Your task to perform on an android device: turn on wifi Image 0: 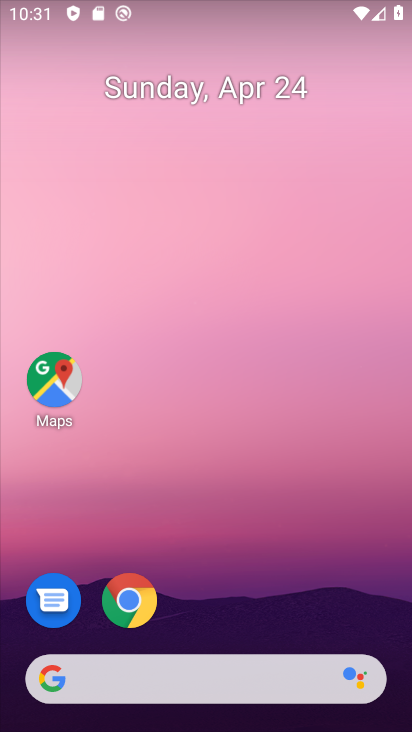
Step 0: drag from (255, 591) to (209, 2)
Your task to perform on an android device: turn on wifi Image 1: 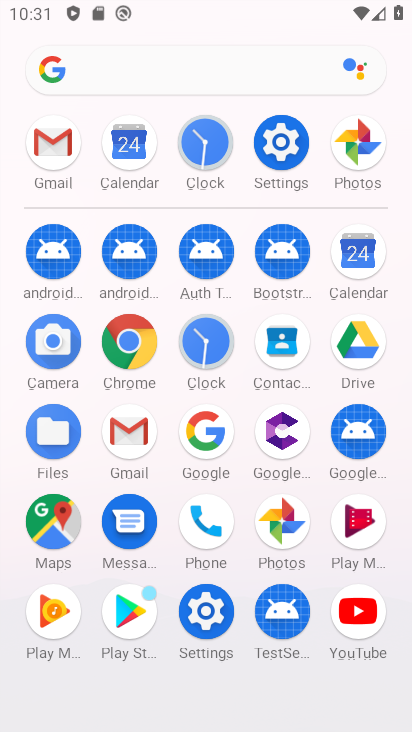
Step 1: click (281, 142)
Your task to perform on an android device: turn on wifi Image 2: 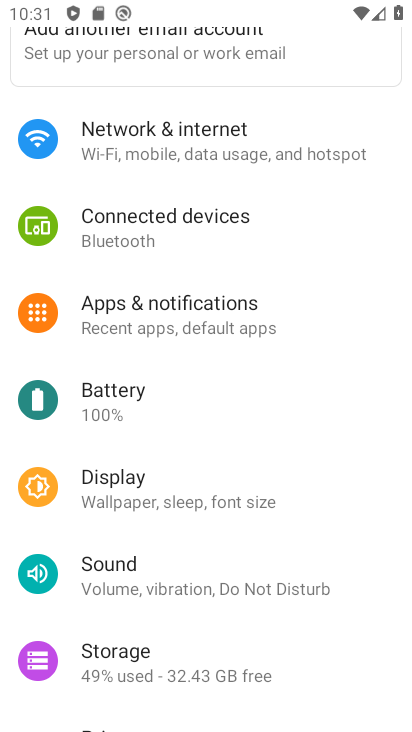
Step 2: click (150, 140)
Your task to perform on an android device: turn on wifi Image 3: 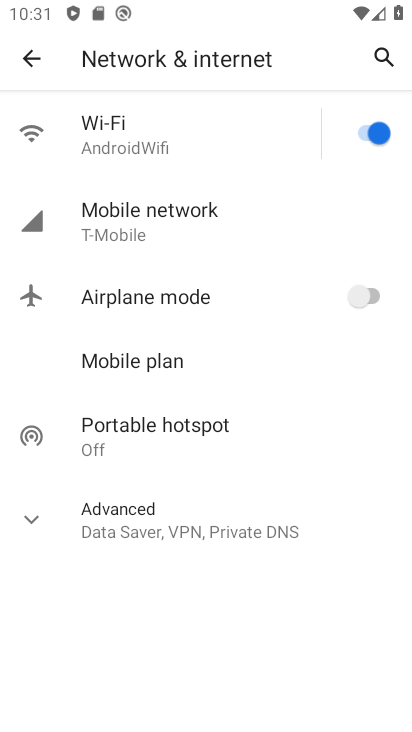
Step 3: task complete